Your task to perform on an android device: Go to internet settings Image 0: 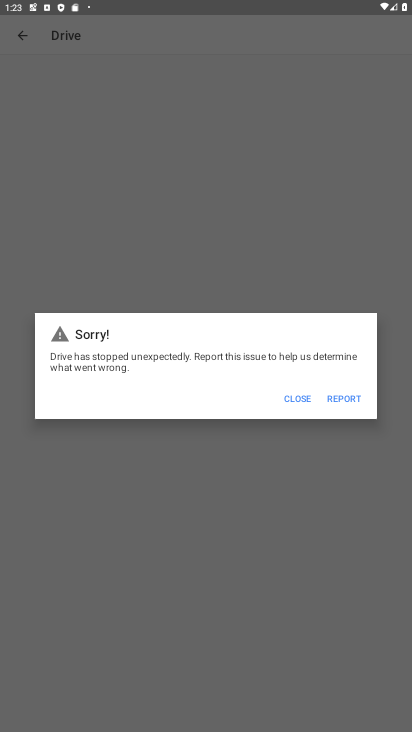
Step 0: press home button
Your task to perform on an android device: Go to internet settings Image 1: 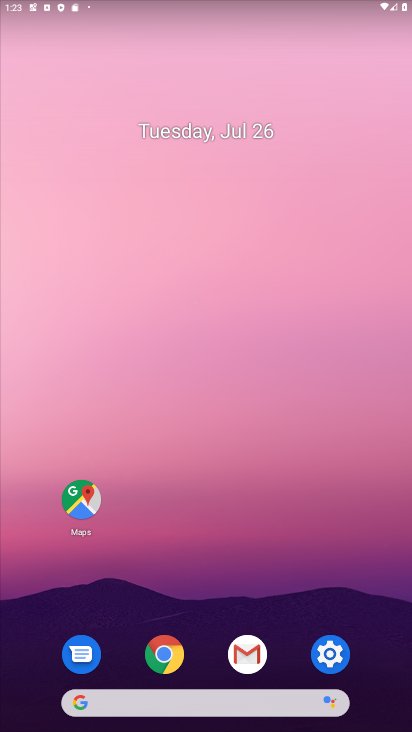
Step 1: click (317, 653)
Your task to perform on an android device: Go to internet settings Image 2: 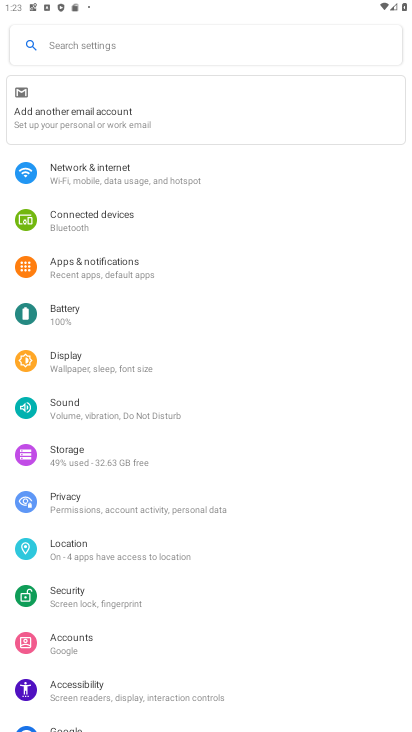
Step 2: click (101, 171)
Your task to perform on an android device: Go to internet settings Image 3: 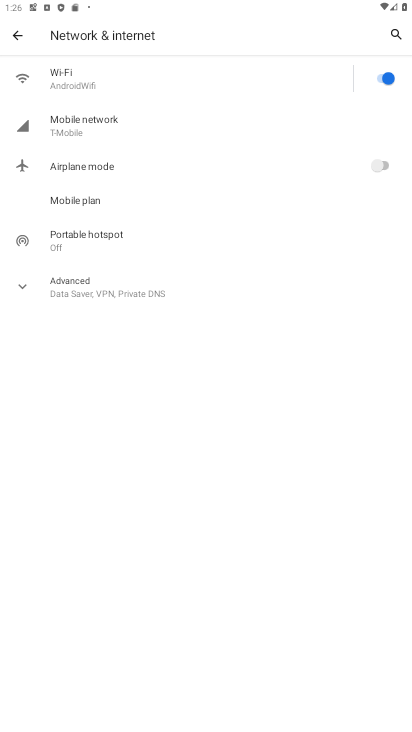
Step 3: task complete